Your task to perform on an android device: toggle data saver in the chrome app Image 0: 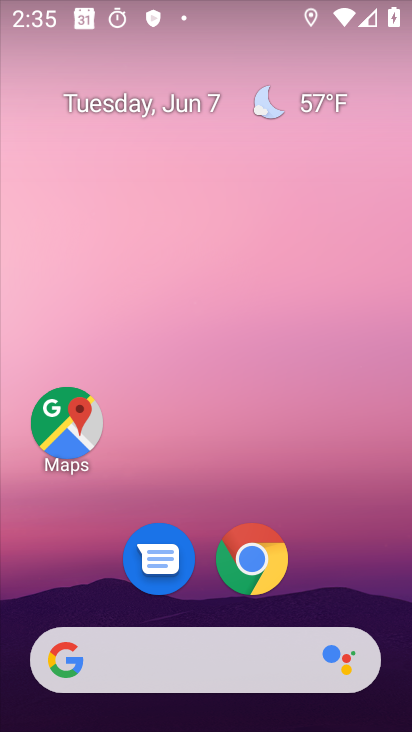
Step 0: drag from (335, 504) to (243, 31)
Your task to perform on an android device: toggle data saver in the chrome app Image 1: 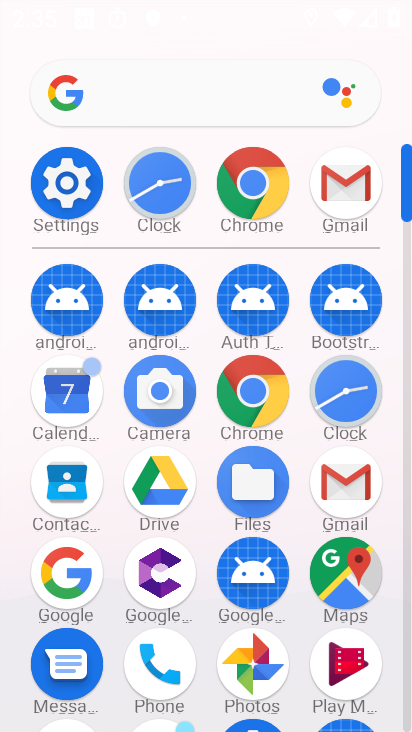
Step 1: drag from (23, 540) to (12, 231)
Your task to perform on an android device: toggle data saver in the chrome app Image 2: 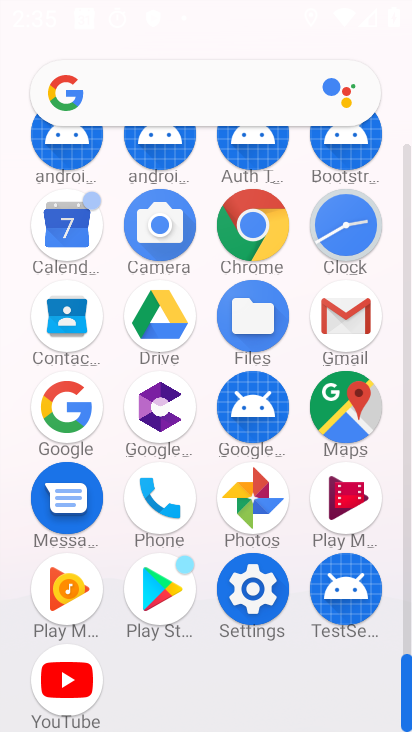
Step 2: click (255, 224)
Your task to perform on an android device: toggle data saver in the chrome app Image 3: 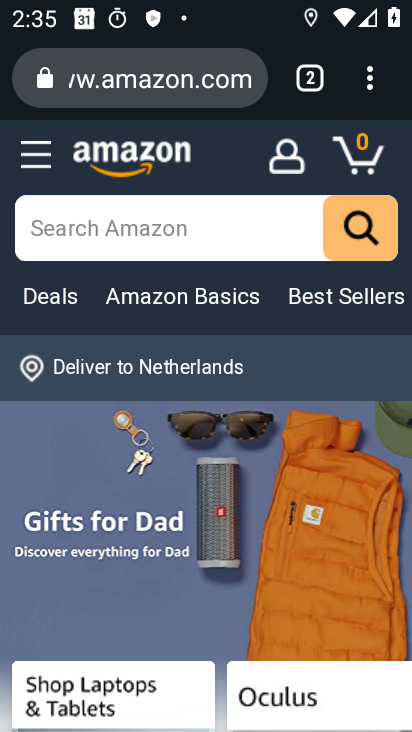
Step 3: drag from (369, 77) to (173, 613)
Your task to perform on an android device: toggle data saver in the chrome app Image 4: 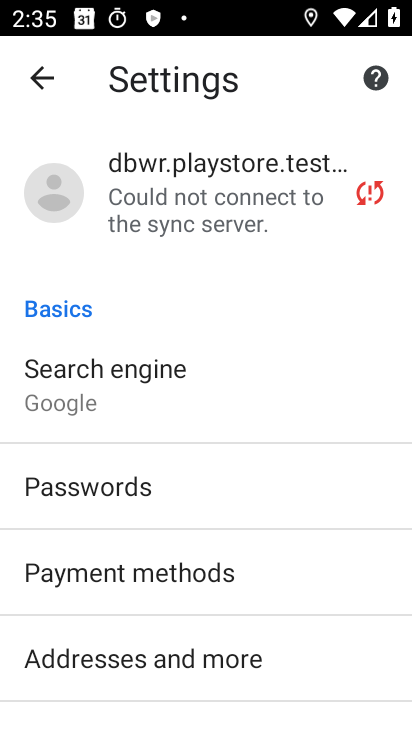
Step 4: drag from (233, 625) to (243, 207)
Your task to perform on an android device: toggle data saver in the chrome app Image 5: 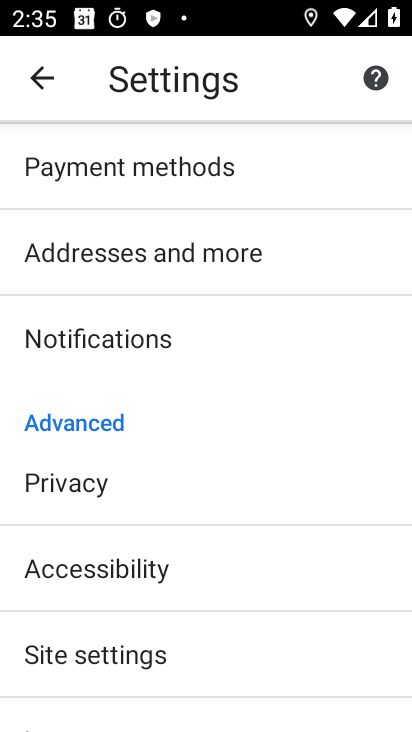
Step 5: drag from (244, 594) to (251, 169)
Your task to perform on an android device: toggle data saver in the chrome app Image 6: 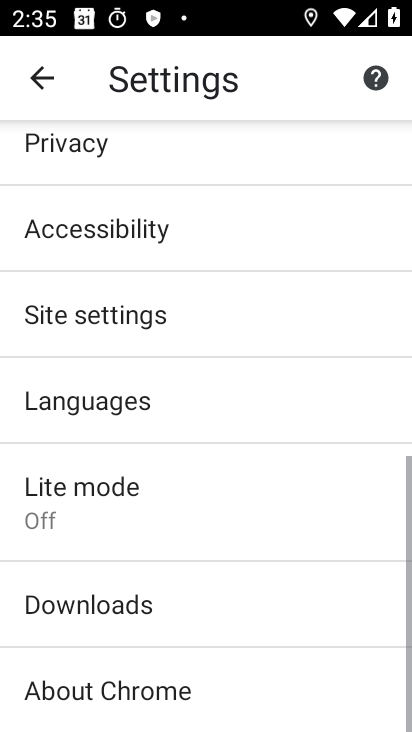
Step 6: drag from (246, 612) to (259, 190)
Your task to perform on an android device: toggle data saver in the chrome app Image 7: 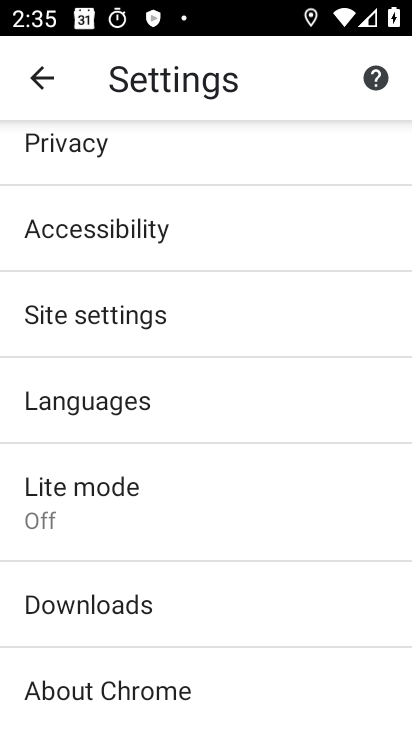
Step 7: click (137, 511)
Your task to perform on an android device: toggle data saver in the chrome app Image 8: 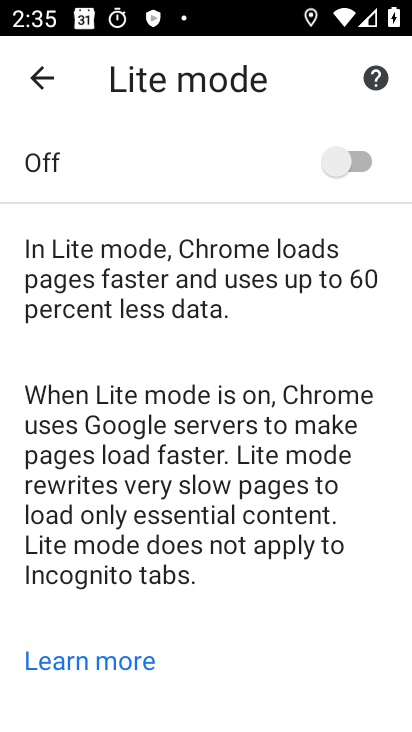
Step 8: click (44, 73)
Your task to perform on an android device: toggle data saver in the chrome app Image 9: 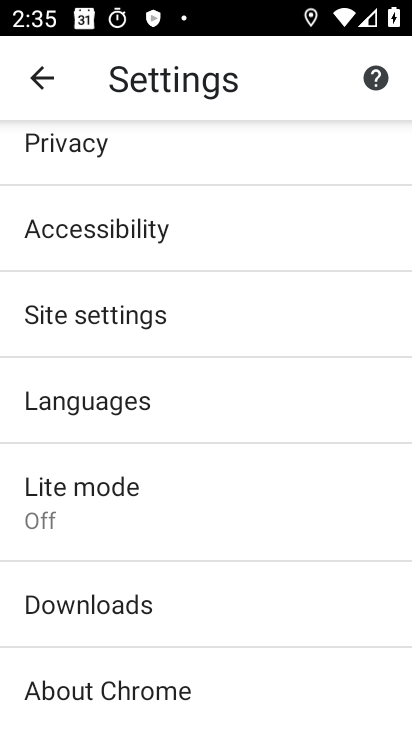
Step 9: task complete